Your task to perform on an android device: toggle wifi Image 0: 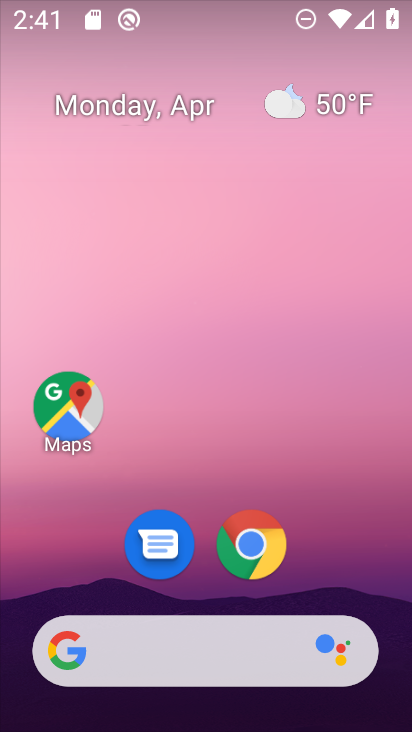
Step 0: drag from (336, 545) to (159, 60)
Your task to perform on an android device: toggle wifi Image 1: 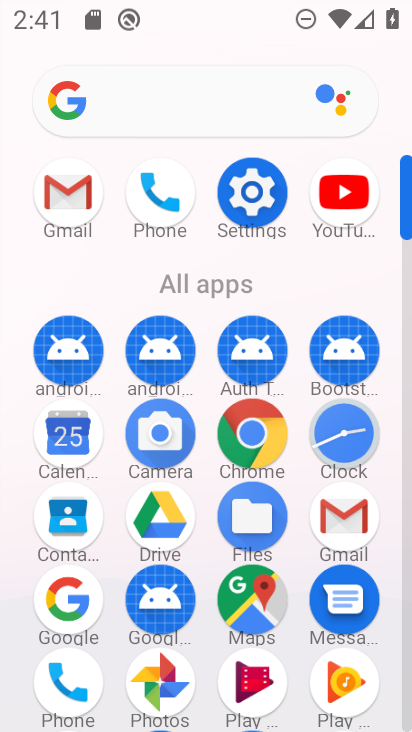
Step 1: click (253, 173)
Your task to perform on an android device: toggle wifi Image 2: 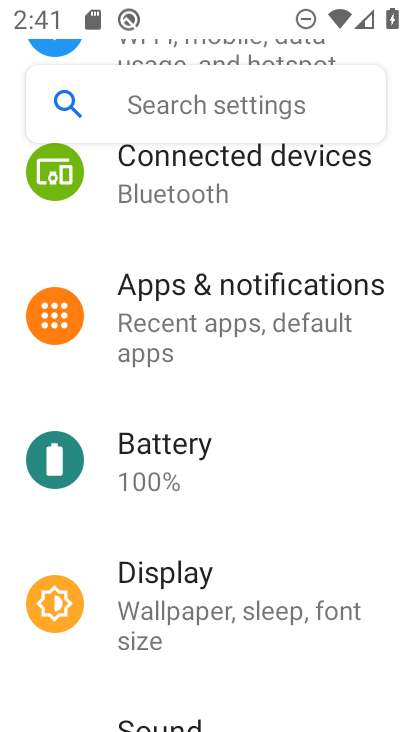
Step 2: drag from (234, 218) to (209, 557)
Your task to perform on an android device: toggle wifi Image 3: 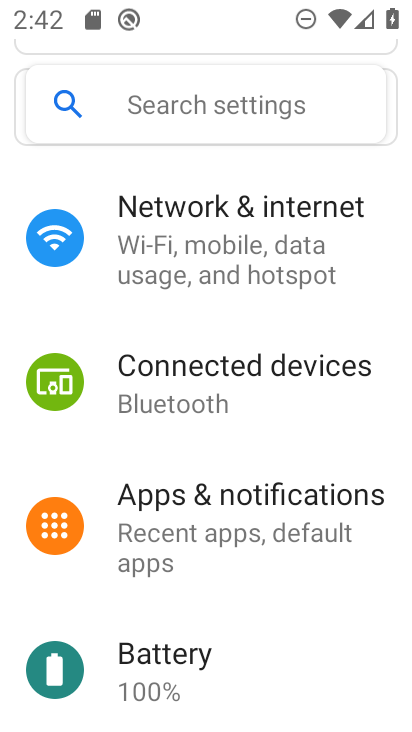
Step 3: click (166, 253)
Your task to perform on an android device: toggle wifi Image 4: 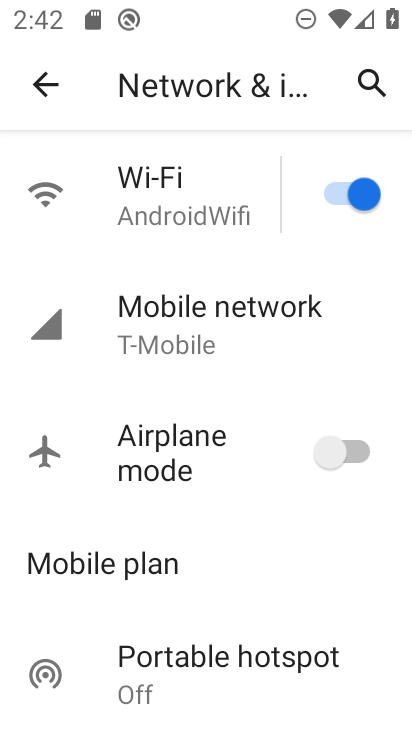
Step 4: click (367, 198)
Your task to perform on an android device: toggle wifi Image 5: 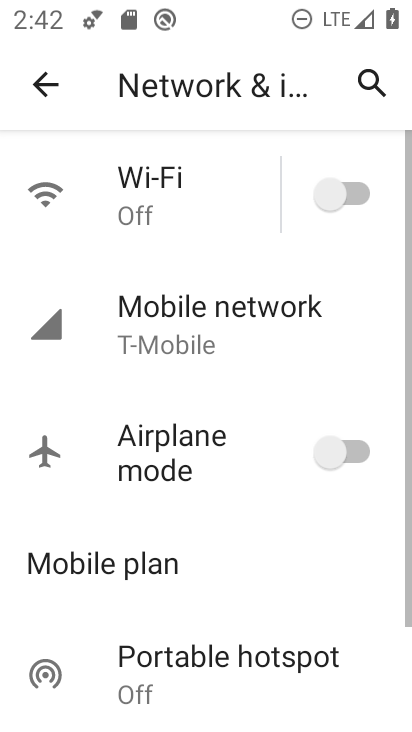
Step 5: task complete